Your task to perform on an android device: Open ESPN.com Image 0: 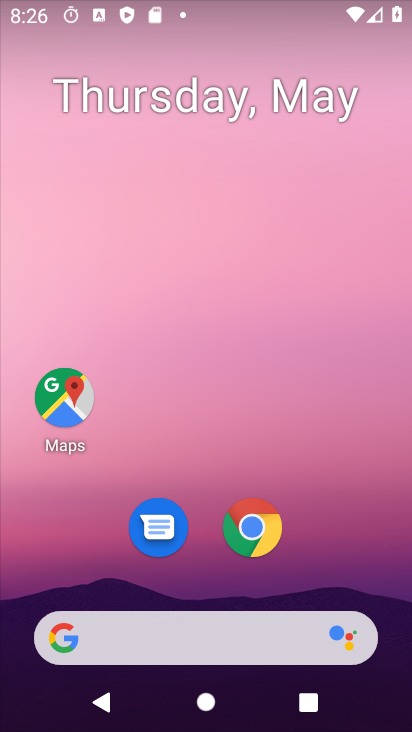
Step 0: click (254, 521)
Your task to perform on an android device: Open ESPN.com Image 1: 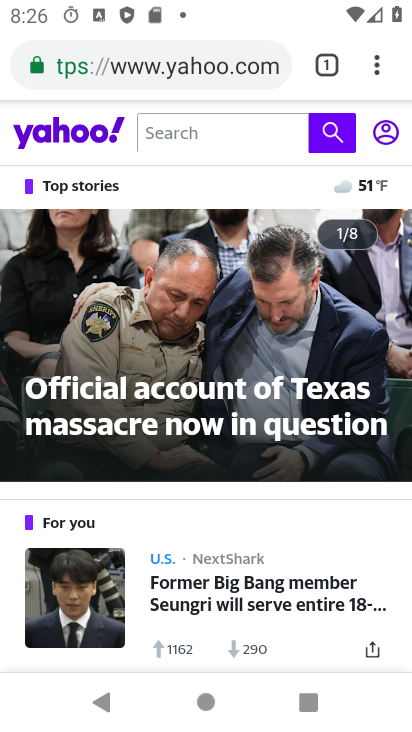
Step 1: click (318, 65)
Your task to perform on an android device: Open ESPN.com Image 2: 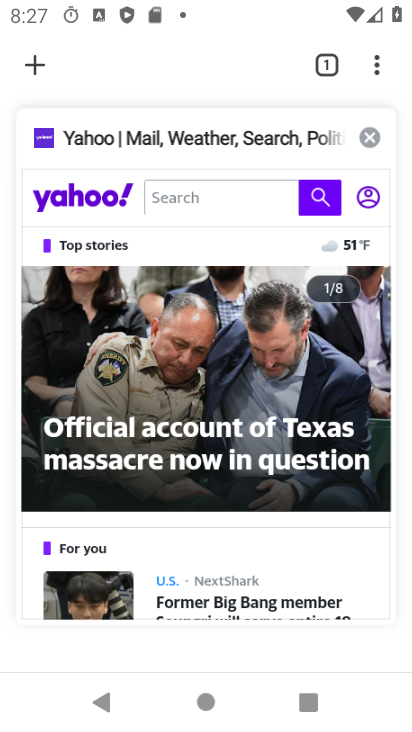
Step 2: click (377, 138)
Your task to perform on an android device: Open ESPN.com Image 3: 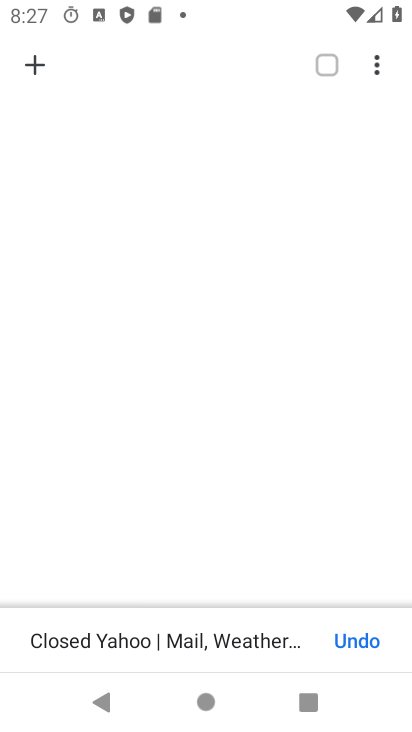
Step 3: click (33, 64)
Your task to perform on an android device: Open ESPN.com Image 4: 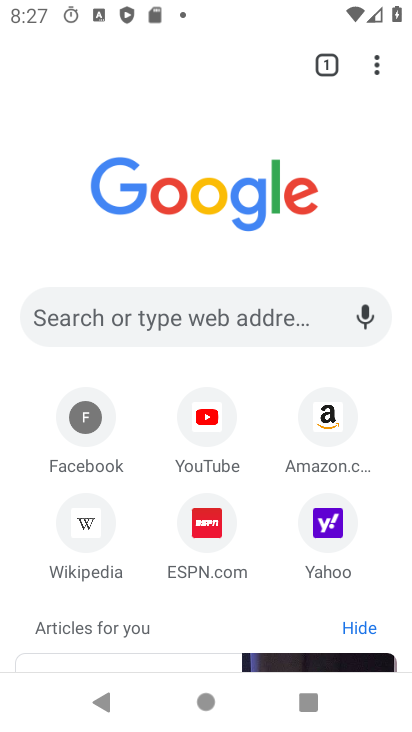
Step 4: click (206, 523)
Your task to perform on an android device: Open ESPN.com Image 5: 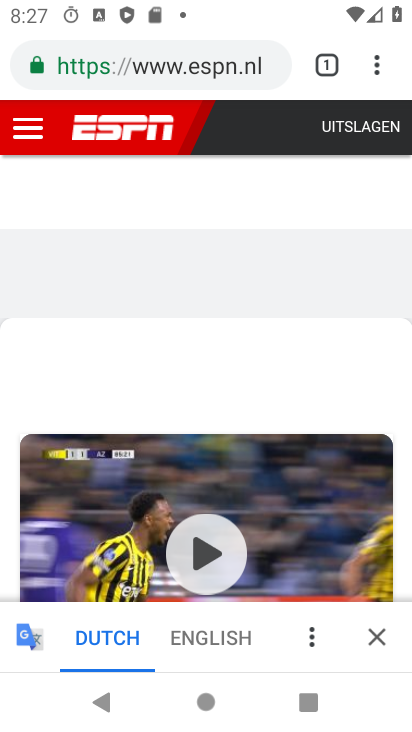
Step 5: click (375, 632)
Your task to perform on an android device: Open ESPN.com Image 6: 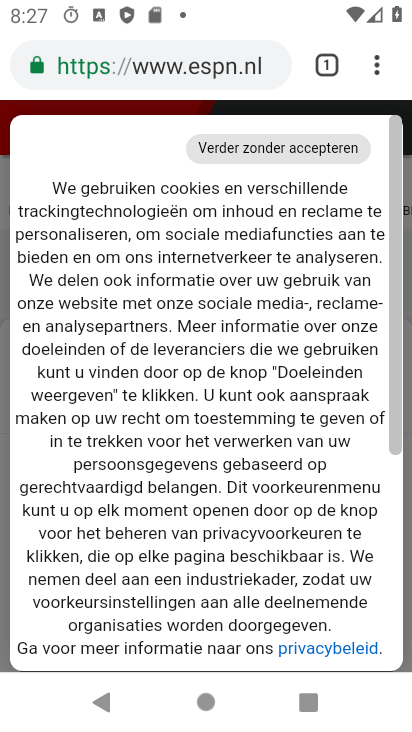
Step 6: task complete